Your task to perform on an android device: Go to battery settings Image 0: 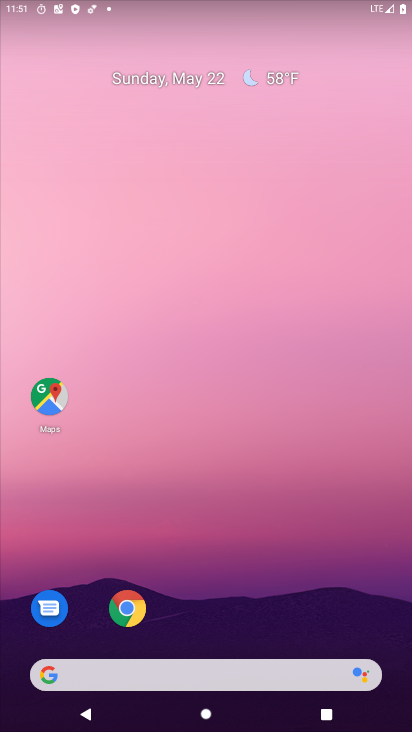
Step 0: drag from (257, 624) to (240, 177)
Your task to perform on an android device: Go to battery settings Image 1: 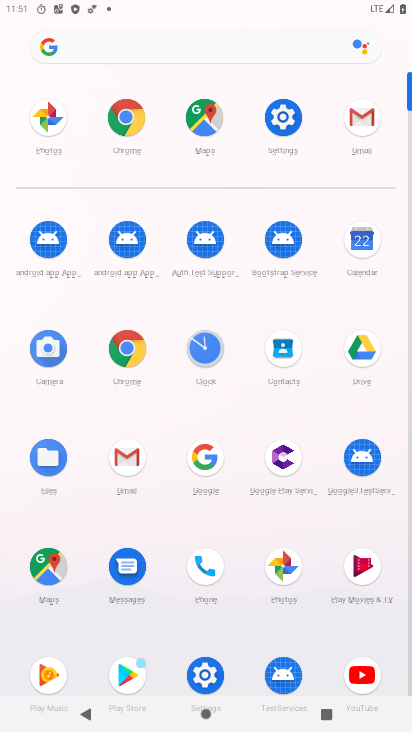
Step 1: click (282, 126)
Your task to perform on an android device: Go to battery settings Image 2: 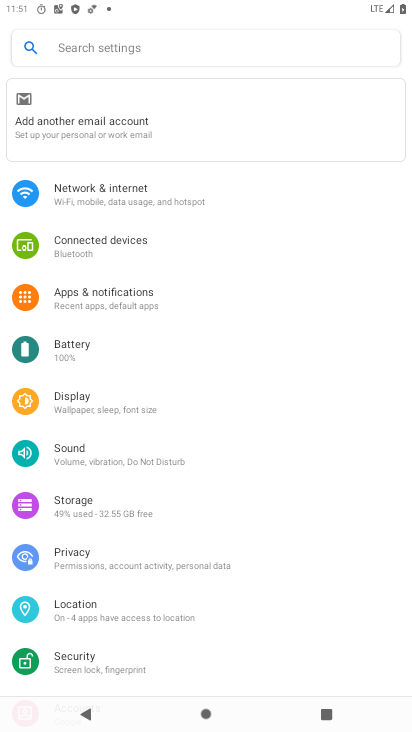
Step 2: click (145, 342)
Your task to perform on an android device: Go to battery settings Image 3: 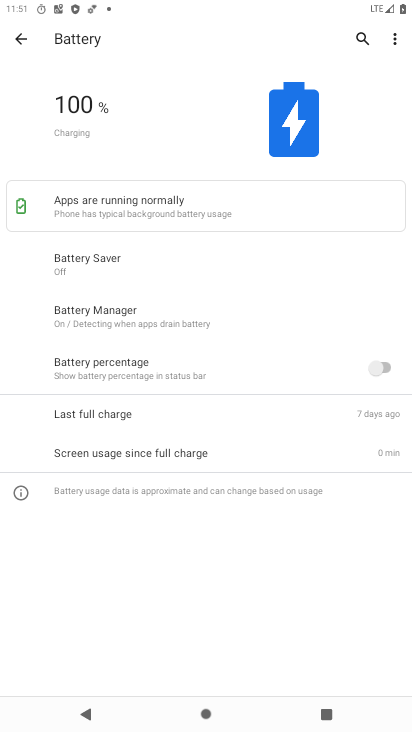
Step 3: task complete